Your task to perform on an android device: turn vacation reply on in the gmail app Image 0: 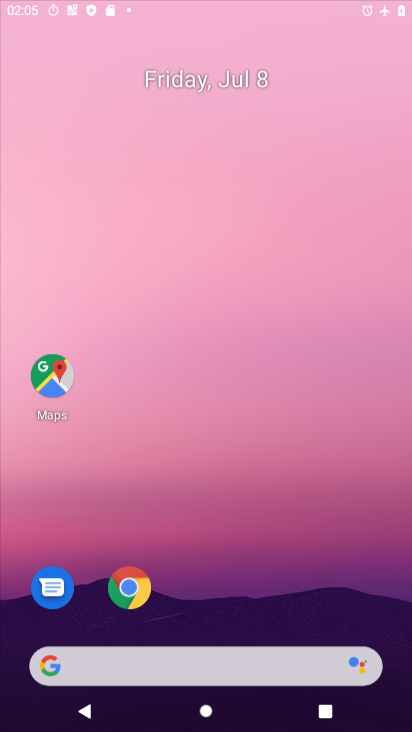
Step 0: click (274, 146)
Your task to perform on an android device: turn vacation reply on in the gmail app Image 1: 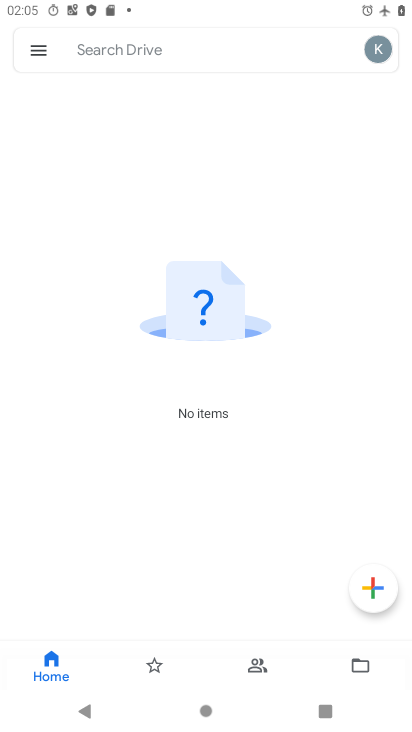
Step 1: press home button
Your task to perform on an android device: turn vacation reply on in the gmail app Image 2: 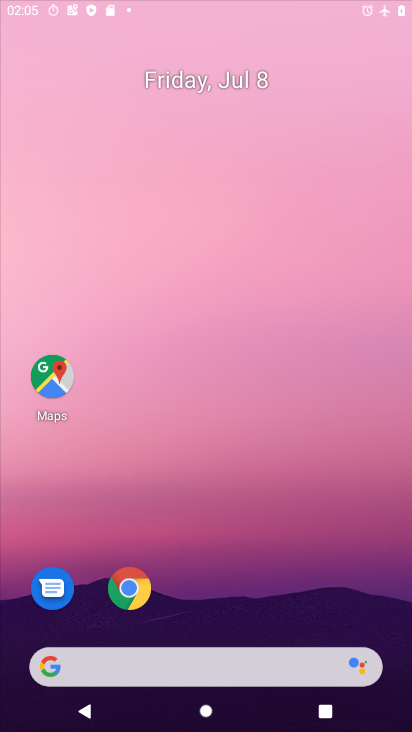
Step 2: drag from (233, 603) to (324, 63)
Your task to perform on an android device: turn vacation reply on in the gmail app Image 3: 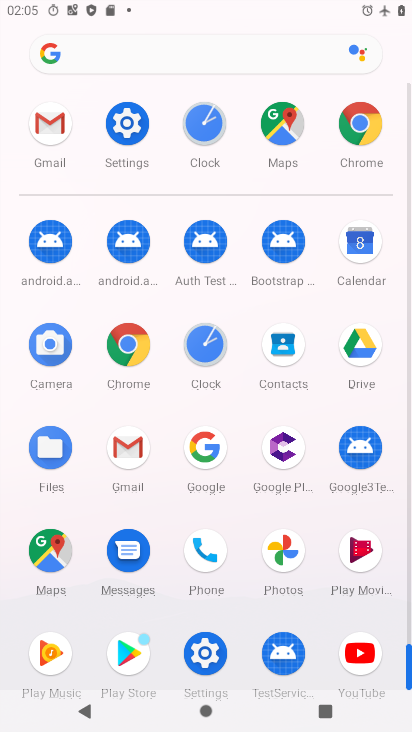
Step 3: click (129, 449)
Your task to perform on an android device: turn vacation reply on in the gmail app Image 4: 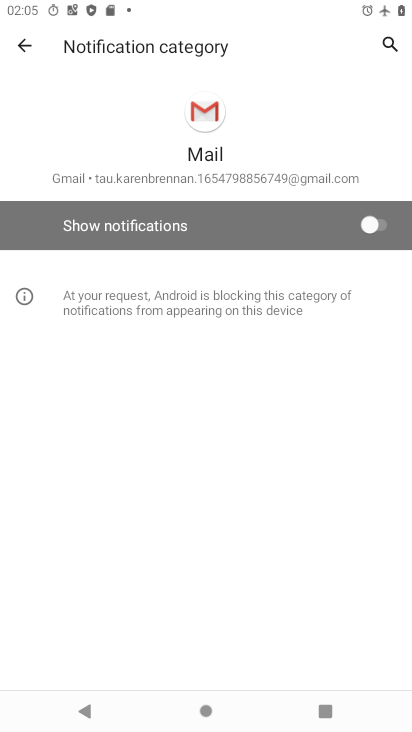
Step 4: click (24, 47)
Your task to perform on an android device: turn vacation reply on in the gmail app Image 5: 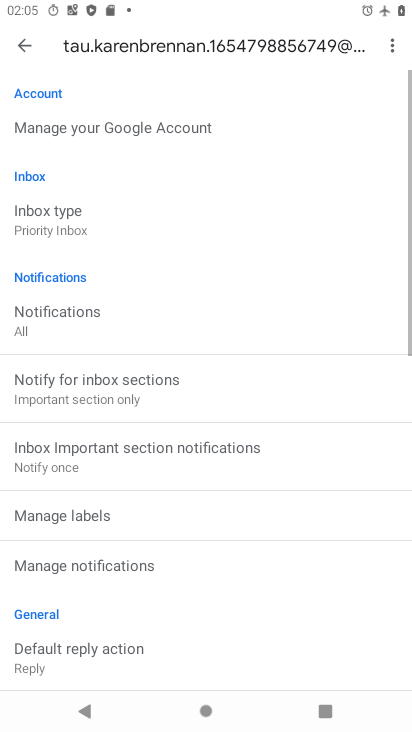
Step 5: click (24, 48)
Your task to perform on an android device: turn vacation reply on in the gmail app Image 6: 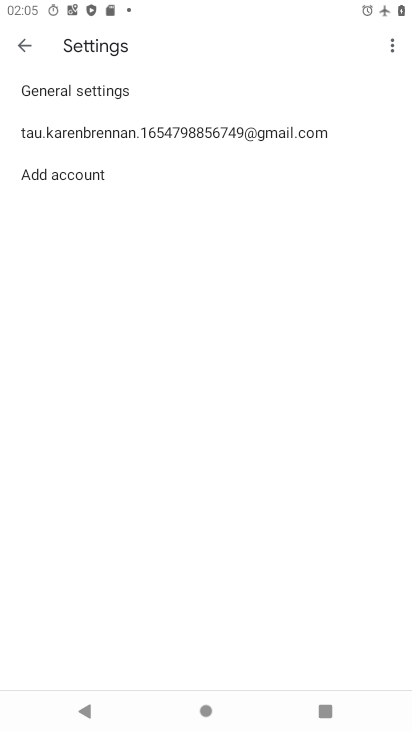
Step 6: click (24, 48)
Your task to perform on an android device: turn vacation reply on in the gmail app Image 7: 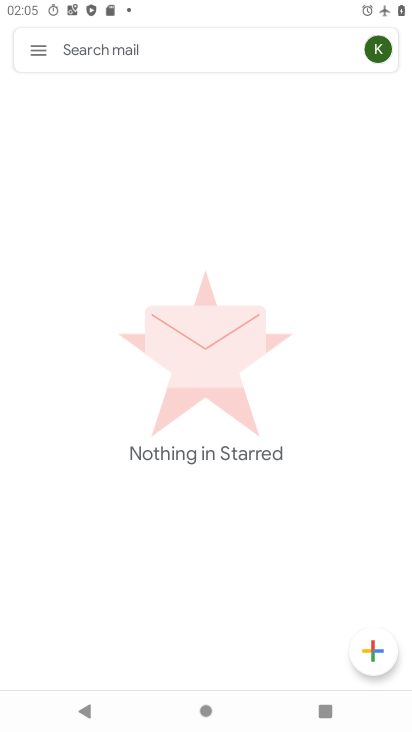
Step 7: click (32, 56)
Your task to perform on an android device: turn vacation reply on in the gmail app Image 8: 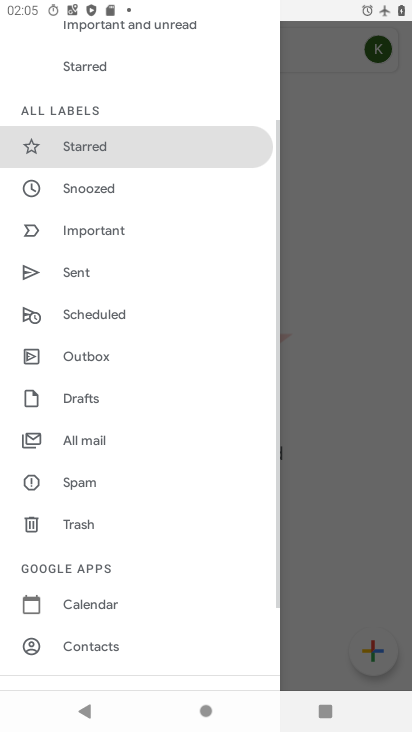
Step 8: drag from (123, 587) to (128, 154)
Your task to perform on an android device: turn vacation reply on in the gmail app Image 9: 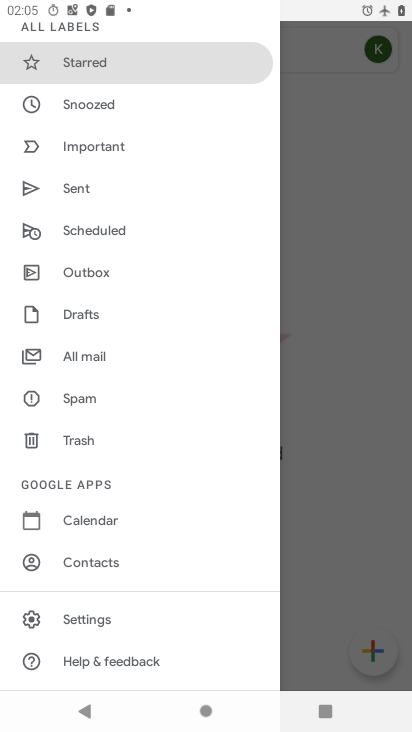
Step 9: click (142, 617)
Your task to perform on an android device: turn vacation reply on in the gmail app Image 10: 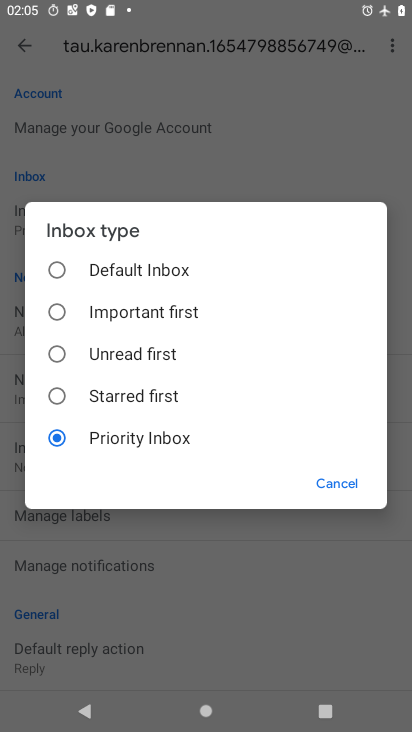
Step 10: click (342, 477)
Your task to perform on an android device: turn vacation reply on in the gmail app Image 11: 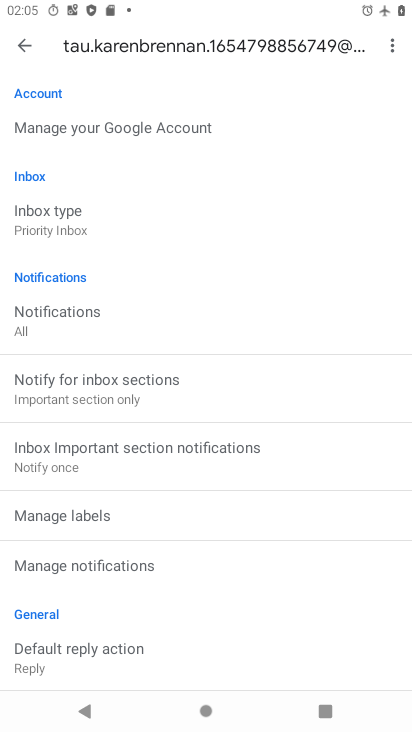
Step 11: drag from (194, 620) to (250, 444)
Your task to perform on an android device: turn vacation reply on in the gmail app Image 12: 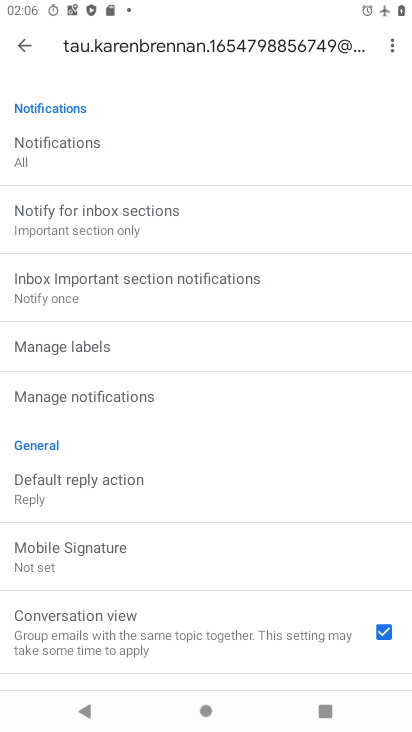
Step 12: drag from (162, 599) to (251, 40)
Your task to perform on an android device: turn vacation reply on in the gmail app Image 13: 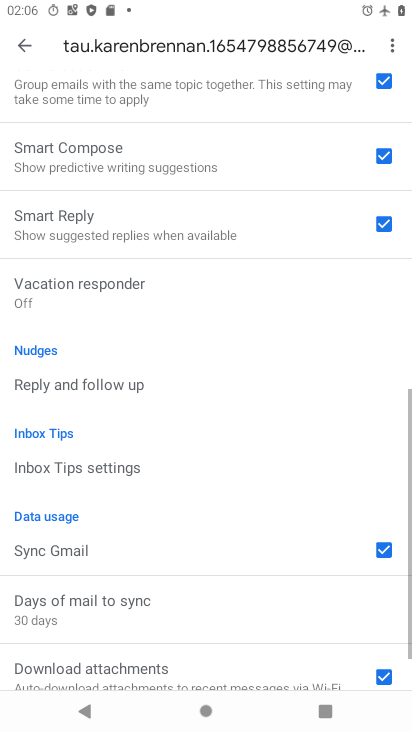
Step 13: drag from (220, 545) to (224, 404)
Your task to perform on an android device: turn vacation reply on in the gmail app Image 14: 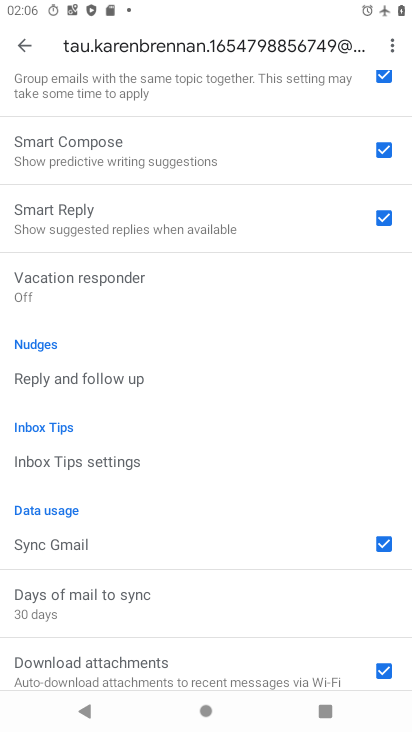
Step 14: click (117, 270)
Your task to perform on an android device: turn vacation reply on in the gmail app Image 15: 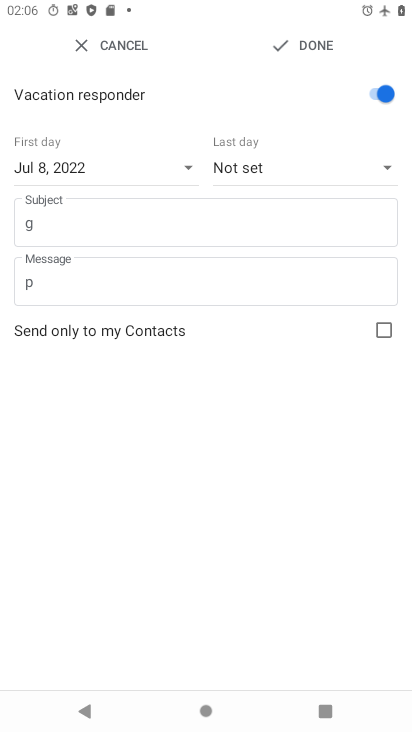
Step 15: click (320, 39)
Your task to perform on an android device: turn vacation reply on in the gmail app Image 16: 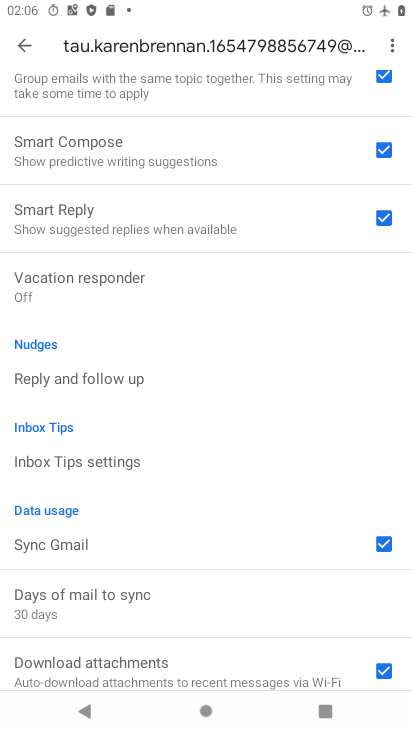
Step 16: task complete